Your task to perform on an android device: Go to internet settings Image 0: 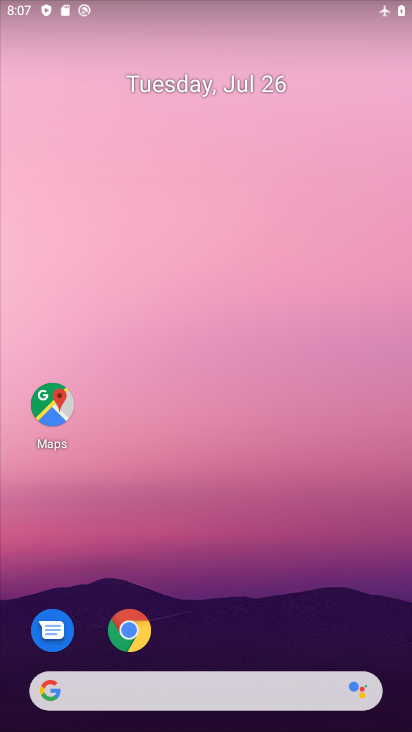
Step 0: drag from (299, 598) to (411, 171)
Your task to perform on an android device: Go to internet settings Image 1: 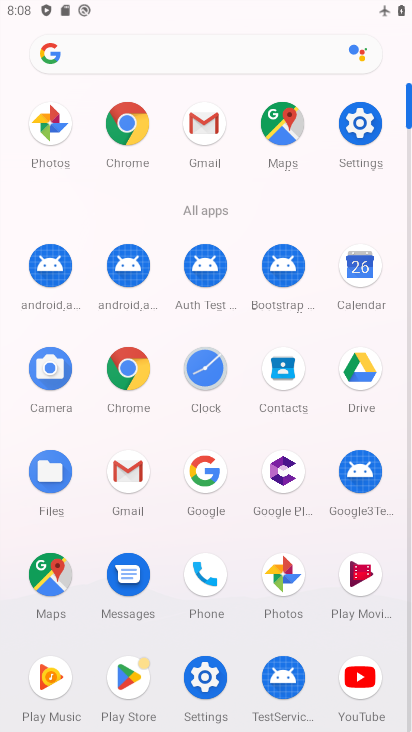
Step 1: click (350, 140)
Your task to perform on an android device: Go to internet settings Image 2: 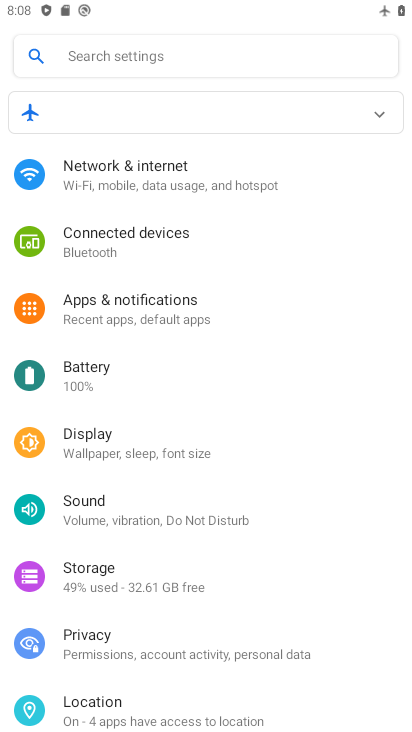
Step 2: click (203, 171)
Your task to perform on an android device: Go to internet settings Image 3: 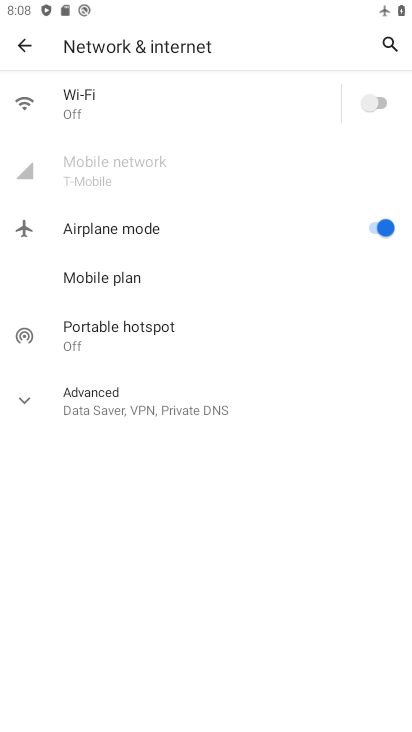
Step 3: task complete